Your task to perform on an android device: change the clock display to analog Image 0: 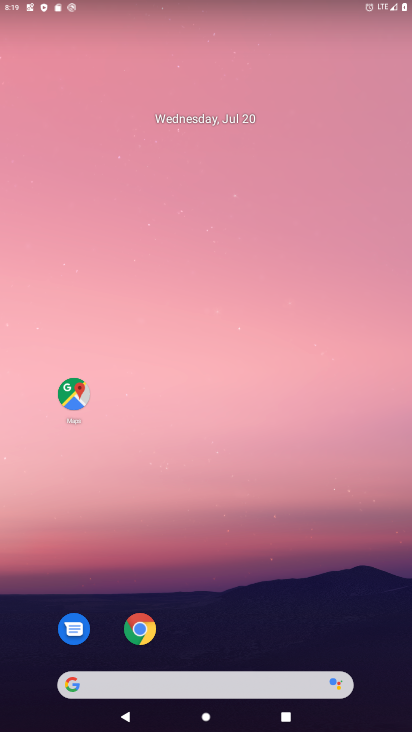
Step 0: drag from (183, 630) to (203, 3)
Your task to perform on an android device: change the clock display to analog Image 1: 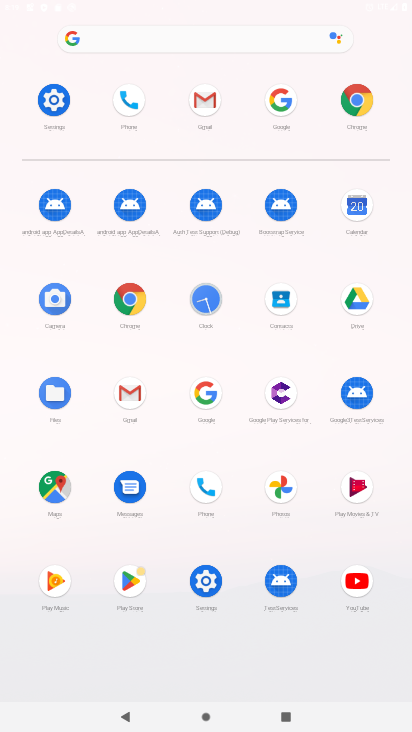
Step 1: click (208, 303)
Your task to perform on an android device: change the clock display to analog Image 2: 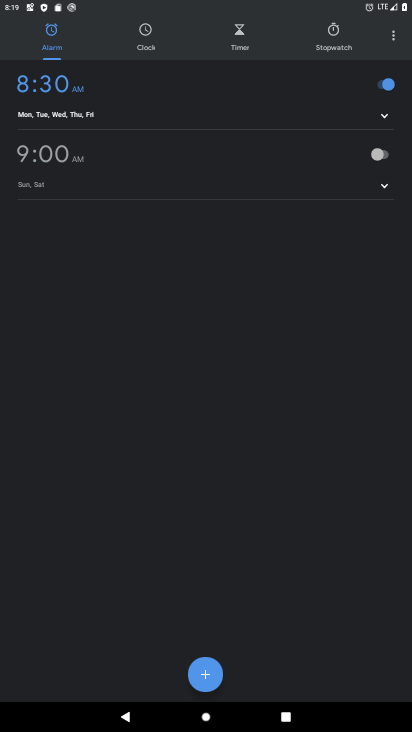
Step 2: click (394, 41)
Your task to perform on an android device: change the clock display to analog Image 3: 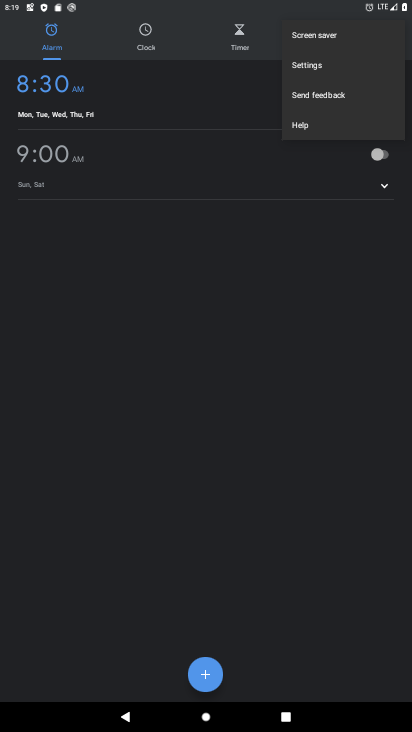
Step 3: click (316, 67)
Your task to perform on an android device: change the clock display to analog Image 4: 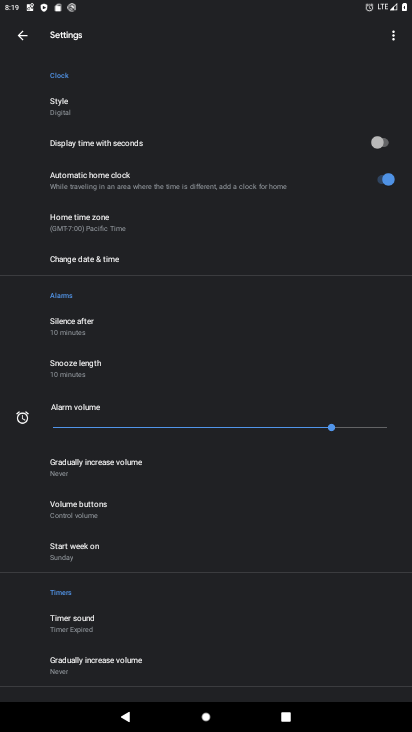
Step 4: click (72, 107)
Your task to perform on an android device: change the clock display to analog Image 5: 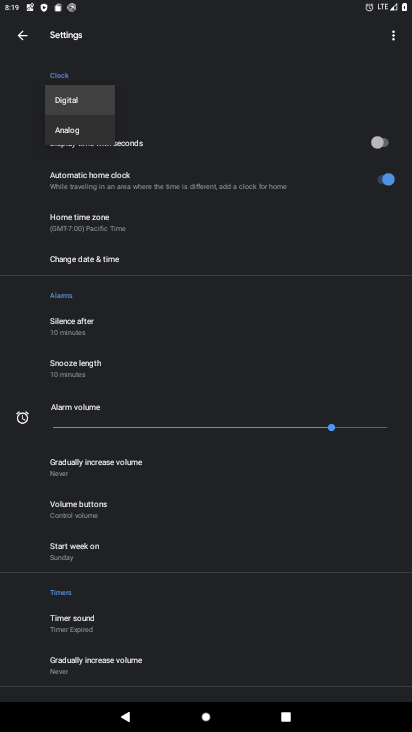
Step 5: click (72, 124)
Your task to perform on an android device: change the clock display to analog Image 6: 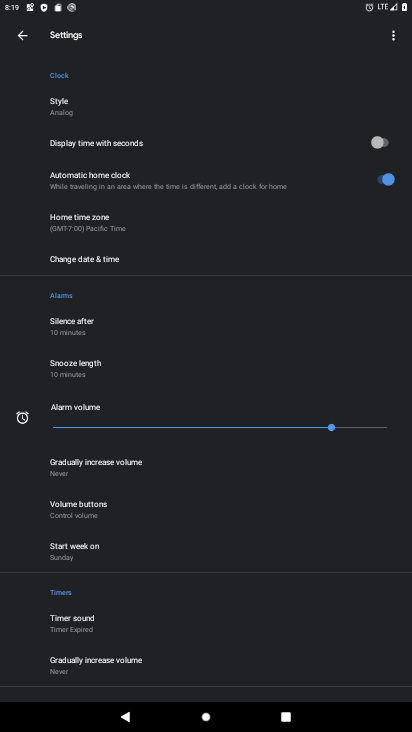
Step 6: task complete